Your task to perform on an android device: turn vacation reply on in the gmail app Image 0: 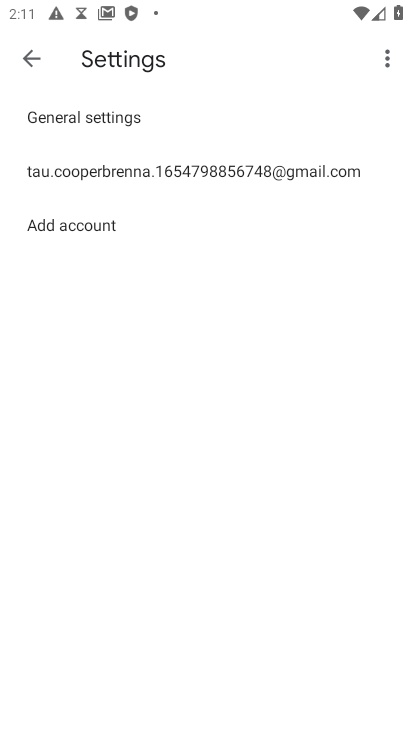
Step 0: click (248, 171)
Your task to perform on an android device: turn vacation reply on in the gmail app Image 1: 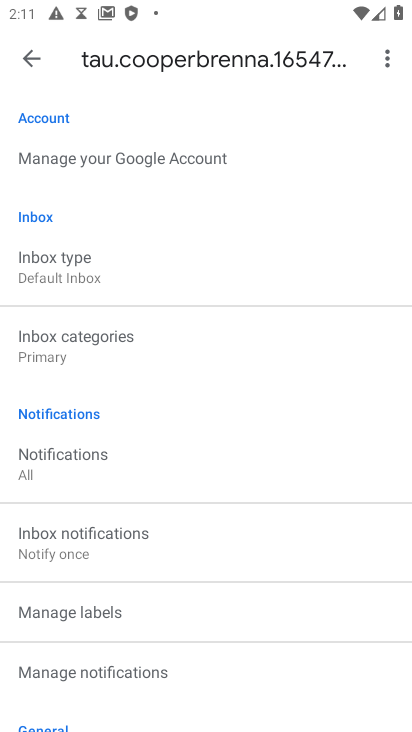
Step 1: drag from (133, 653) to (128, 17)
Your task to perform on an android device: turn vacation reply on in the gmail app Image 2: 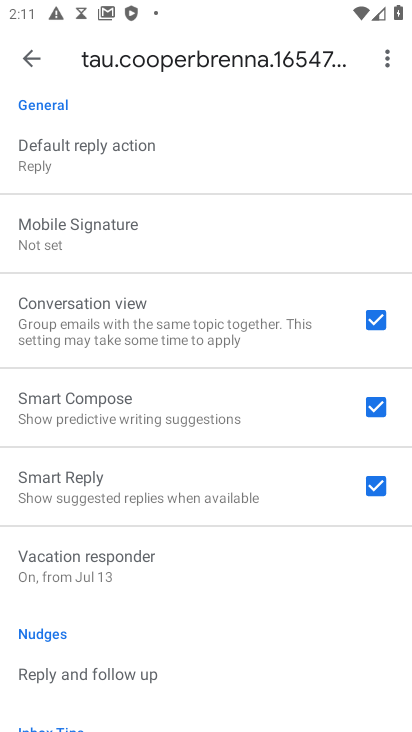
Step 2: click (135, 573)
Your task to perform on an android device: turn vacation reply on in the gmail app Image 3: 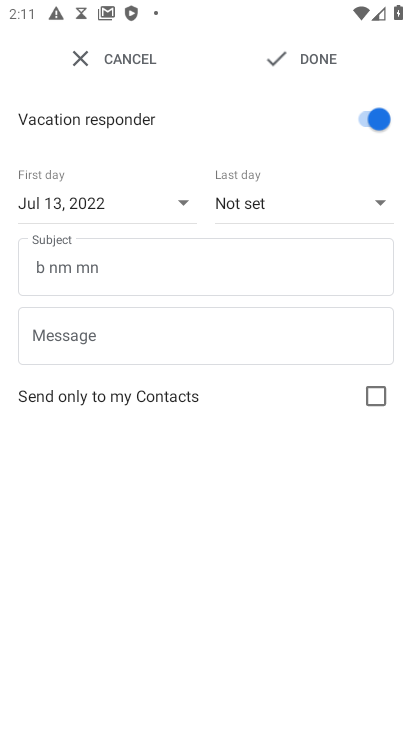
Step 3: click (304, 60)
Your task to perform on an android device: turn vacation reply on in the gmail app Image 4: 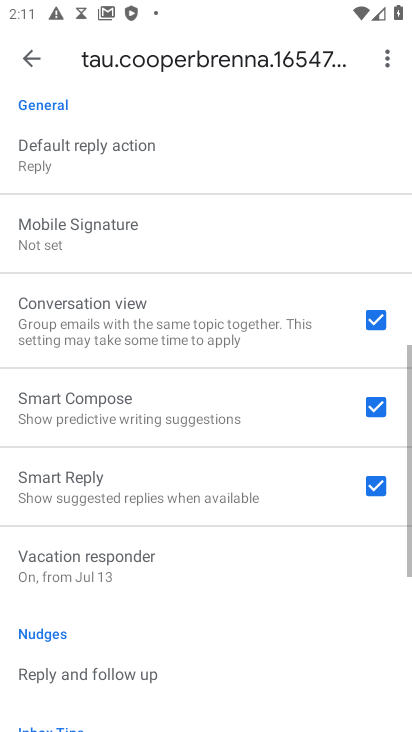
Step 4: task complete